Your task to perform on an android device: turn on notifications settings in the gmail app Image 0: 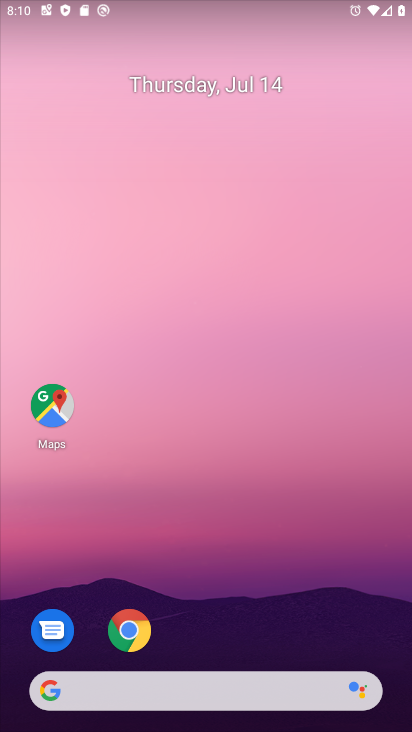
Step 0: drag from (239, 702) to (188, 61)
Your task to perform on an android device: turn on notifications settings in the gmail app Image 1: 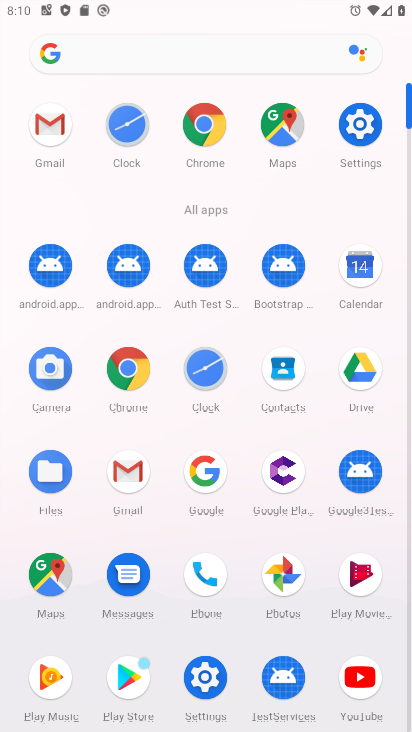
Step 1: click (119, 475)
Your task to perform on an android device: turn on notifications settings in the gmail app Image 2: 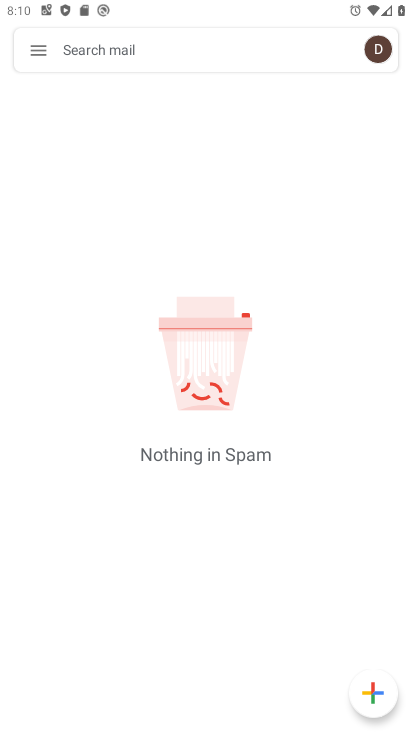
Step 2: click (42, 48)
Your task to perform on an android device: turn on notifications settings in the gmail app Image 3: 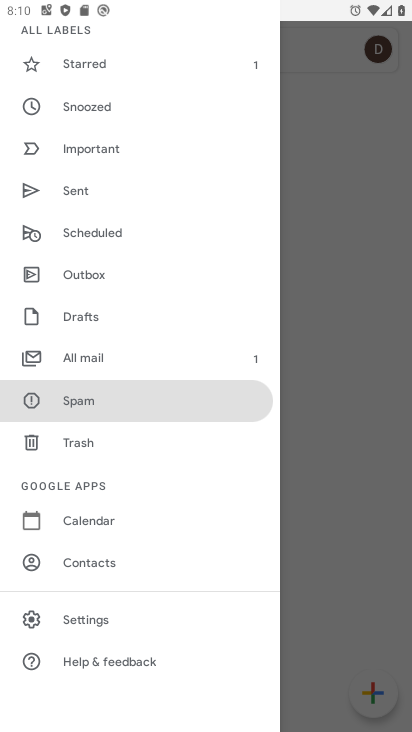
Step 3: click (84, 615)
Your task to perform on an android device: turn on notifications settings in the gmail app Image 4: 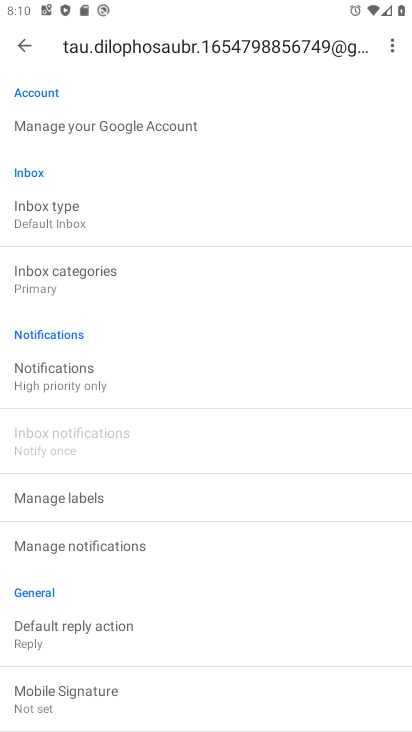
Step 4: click (60, 382)
Your task to perform on an android device: turn on notifications settings in the gmail app Image 5: 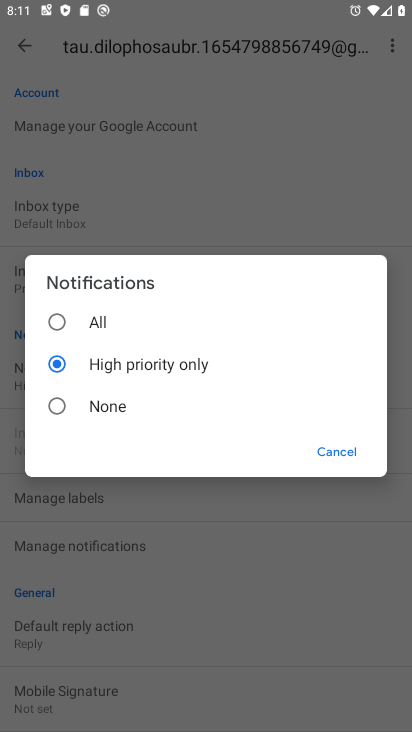
Step 5: click (57, 314)
Your task to perform on an android device: turn on notifications settings in the gmail app Image 6: 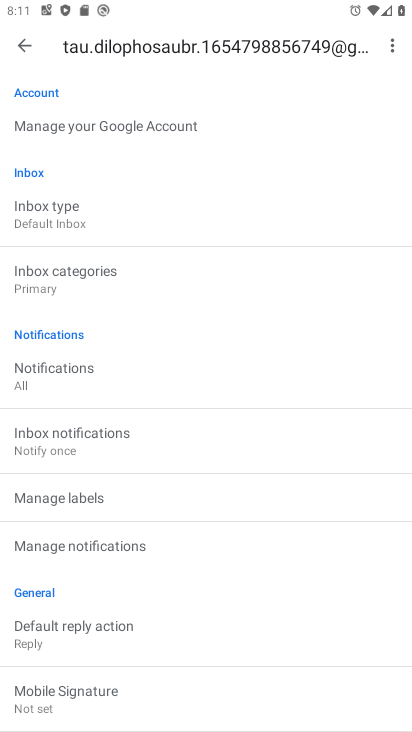
Step 6: task complete